Your task to perform on an android device: Add "bose quietcomfort 35" to the cart on newegg, then select checkout. Image 0: 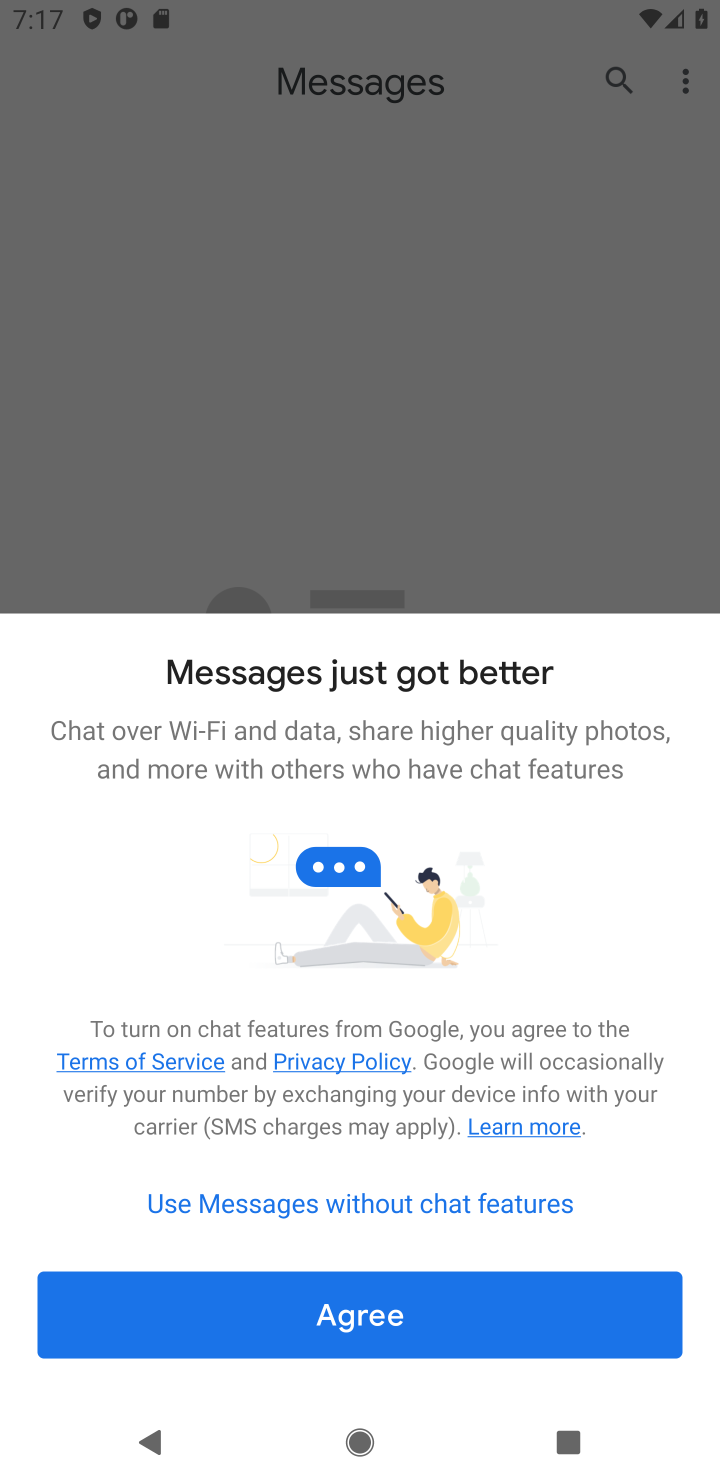
Step 0: press home button
Your task to perform on an android device: Add "bose quietcomfort 35" to the cart on newegg, then select checkout. Image 1: 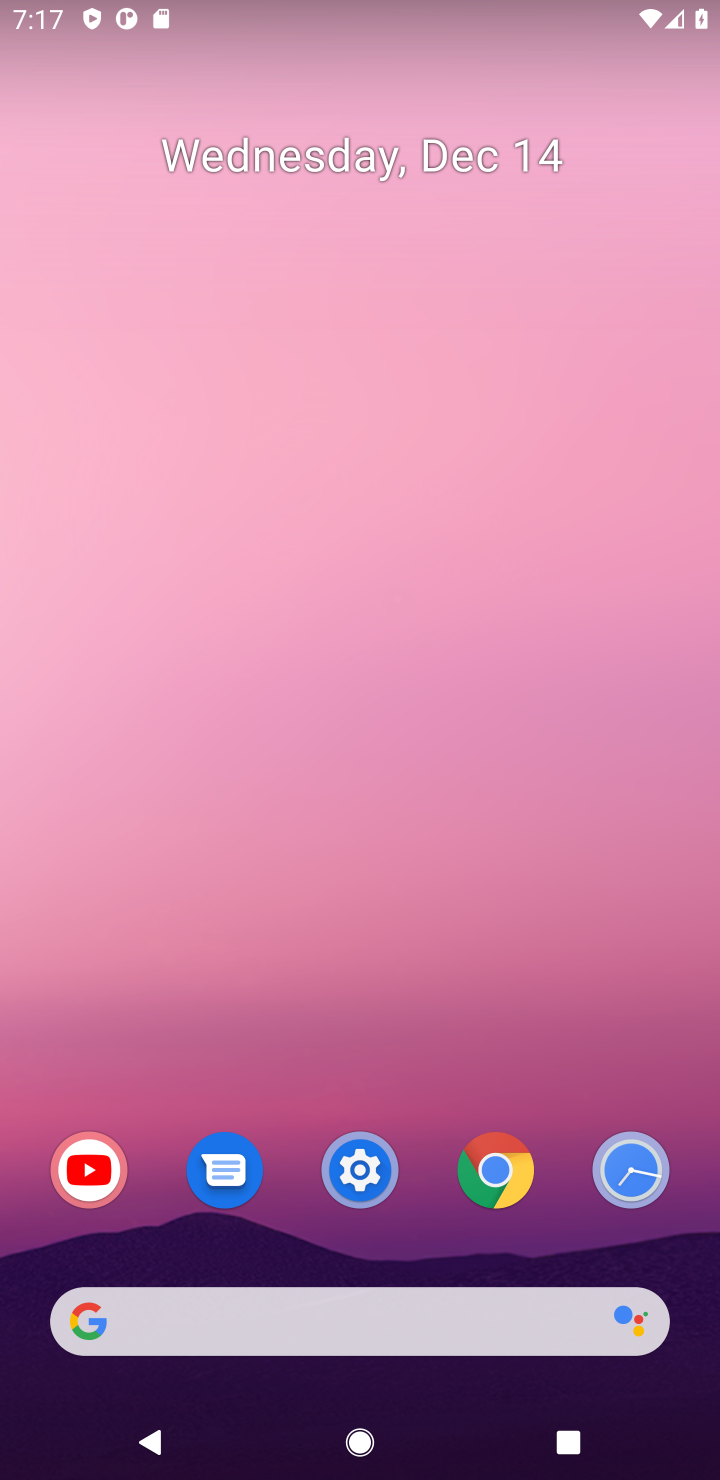
Step 1: click (495, 1166)
Your task to perform on an android device: Add "bose quietcomfort 35" to the cart on newegg, then select checkout. Image 2: 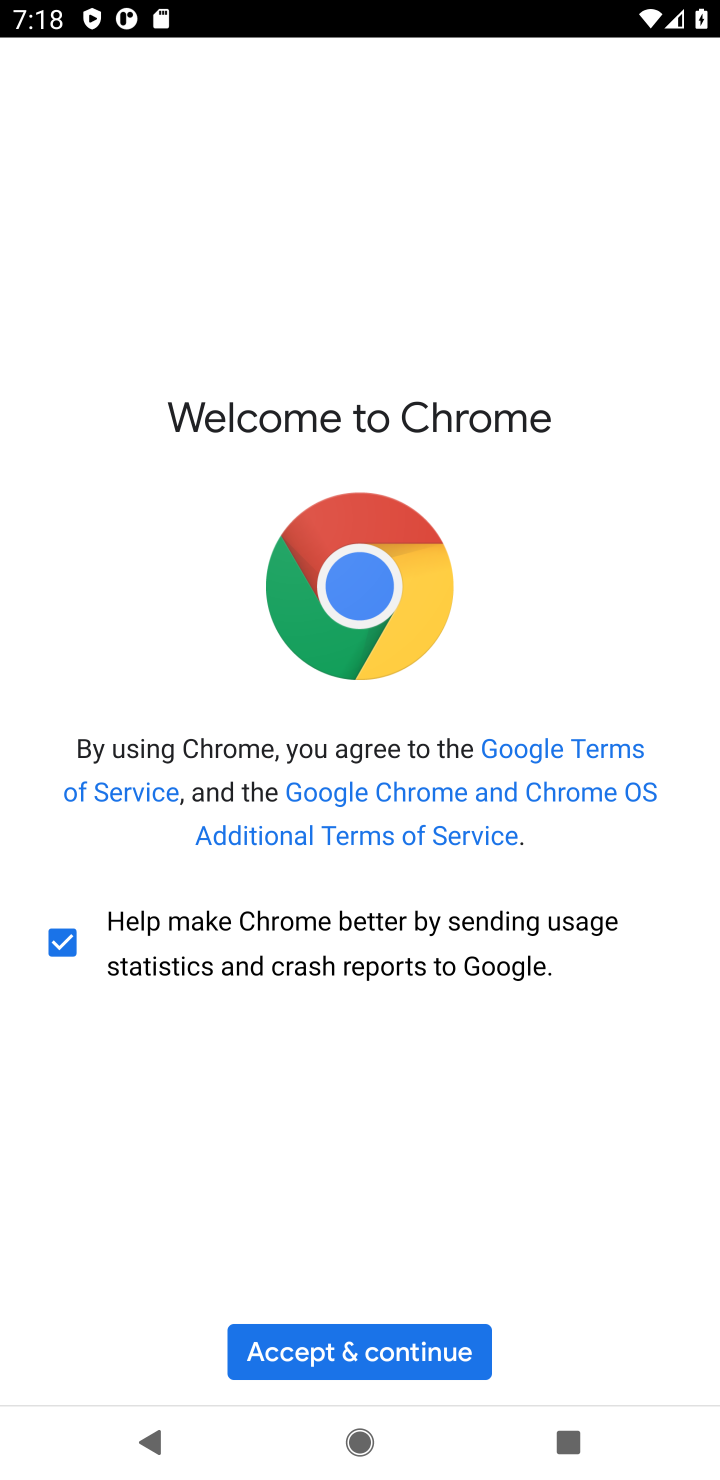
Step 2: click (307, 1351)
Your task to perform on an android device: Add "bose quietcomfort 35" to the cart on newegg, then select checkout. Image 3: 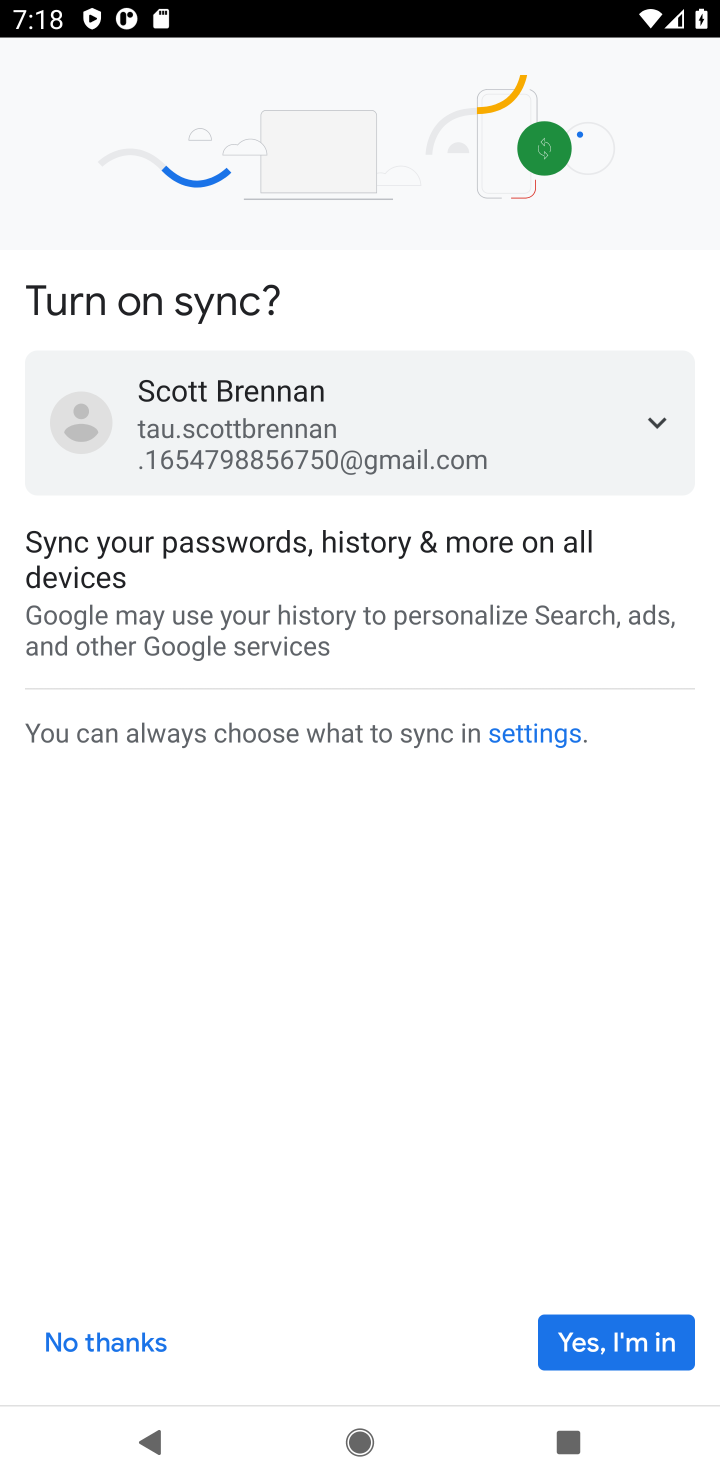
Step 3: click (601, 1346)
Your task to perform on an android device: Add "bose quietcomfort 35" to the cart on newegg, then select checkout. Image 4: 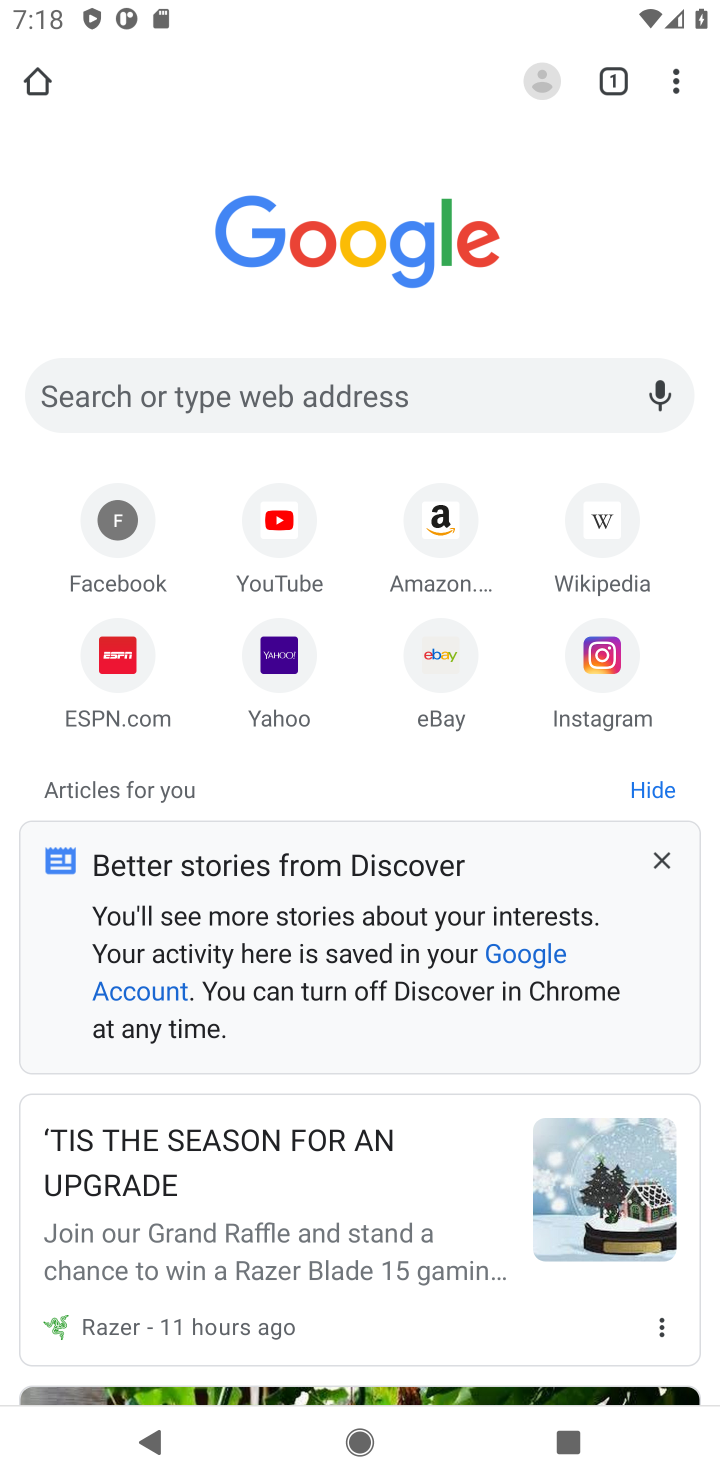
Step 4: click (415, 390)
Your task to perform on an android device: Add "bose quietcomfort 35" to the cart on newegg, then select checkout. Image 5: 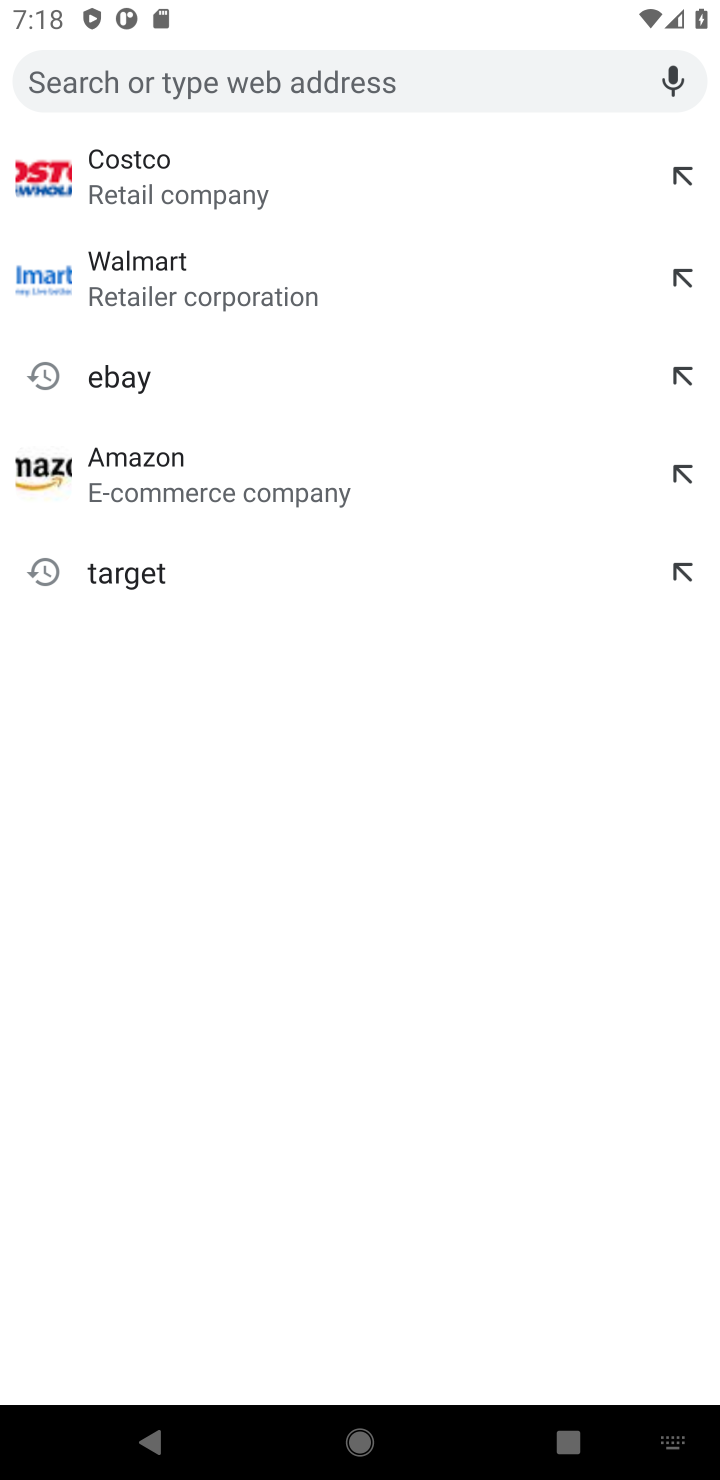
Step 5: type "newegg"
Your task to perform on an android device: Add "bose quietcomfort 35" to the cart on newegg, then select checkout. Image 6: 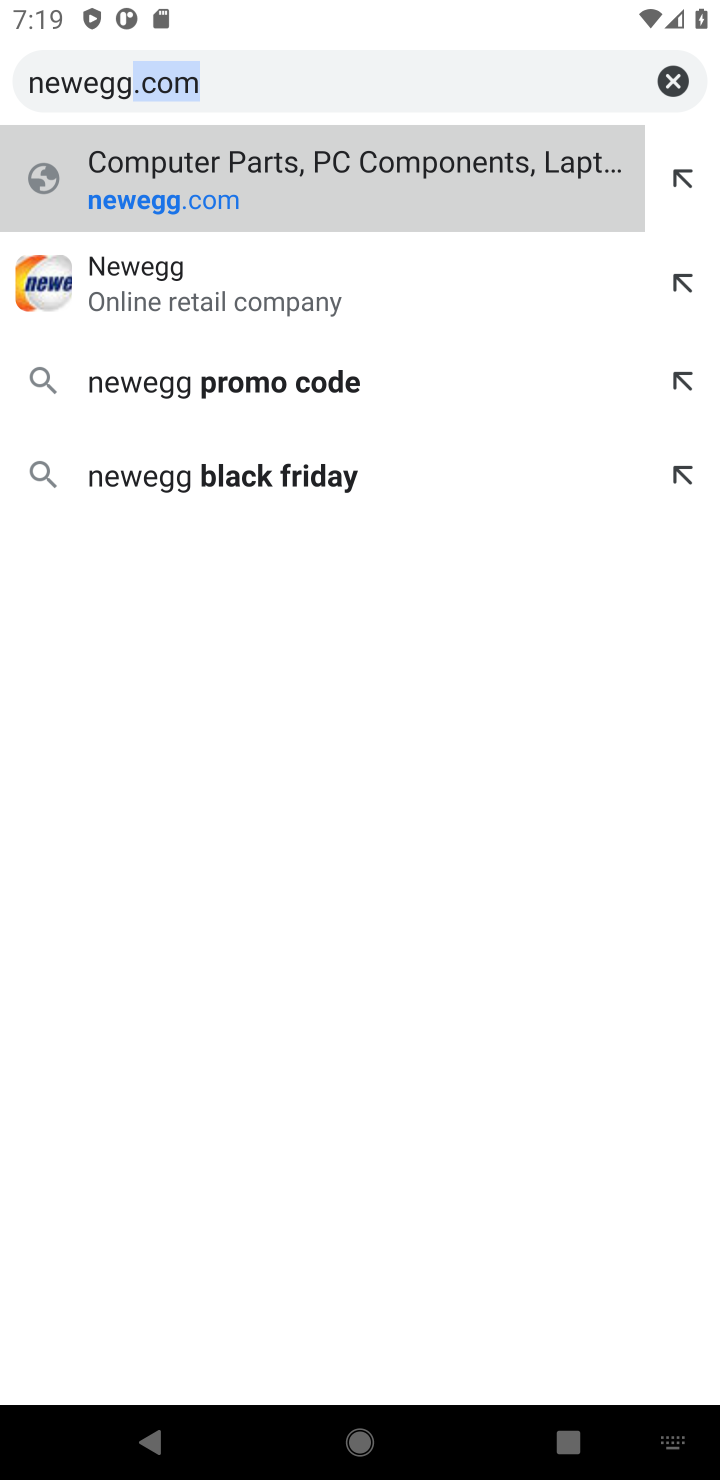
Step 6: click (249, 159)
Your task to perform on an android device: Add "bose quietcomfort 35" to the cart on newegg, then select checkout. Image 7: 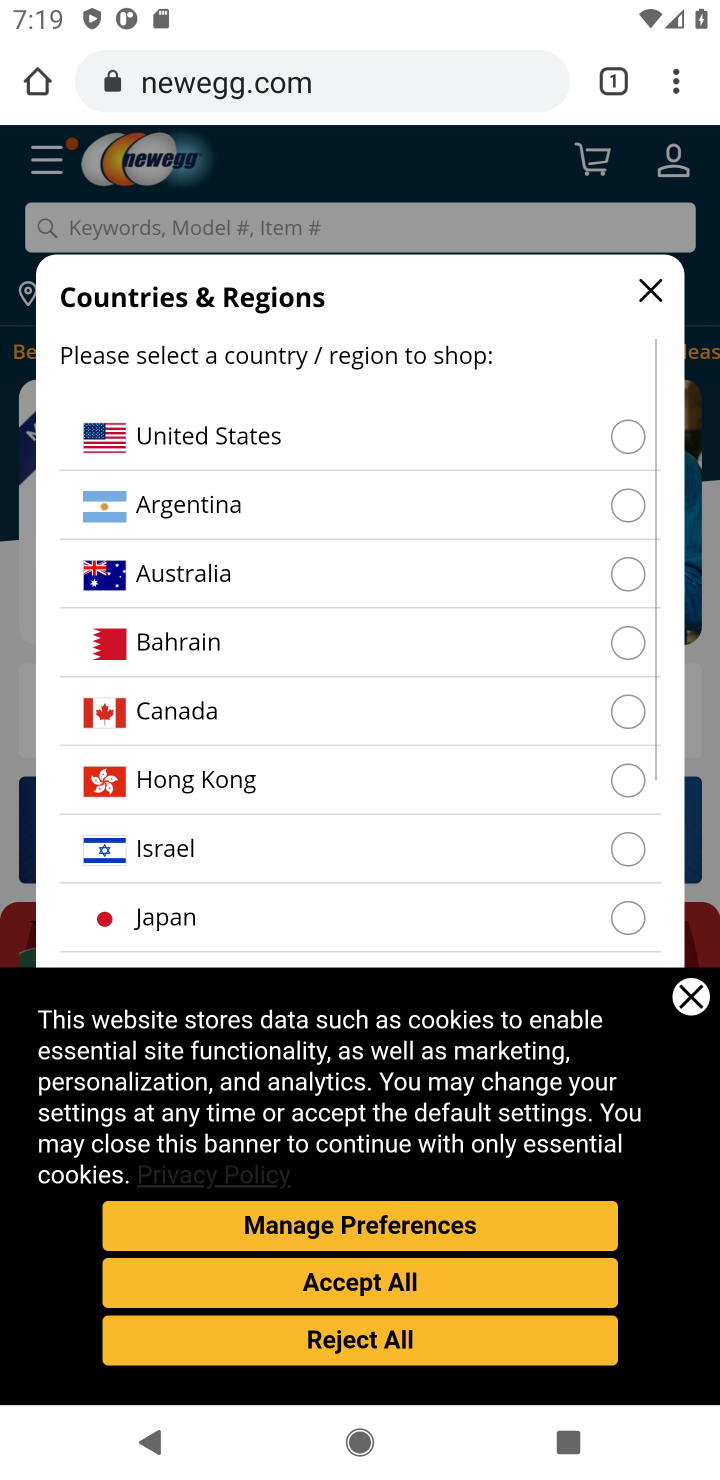
Step 7: click (688, 1002)
Your task to perform on an android device: Add "bose quietcomfort 35" to the cart on newegg, then select checkout. Image 8: 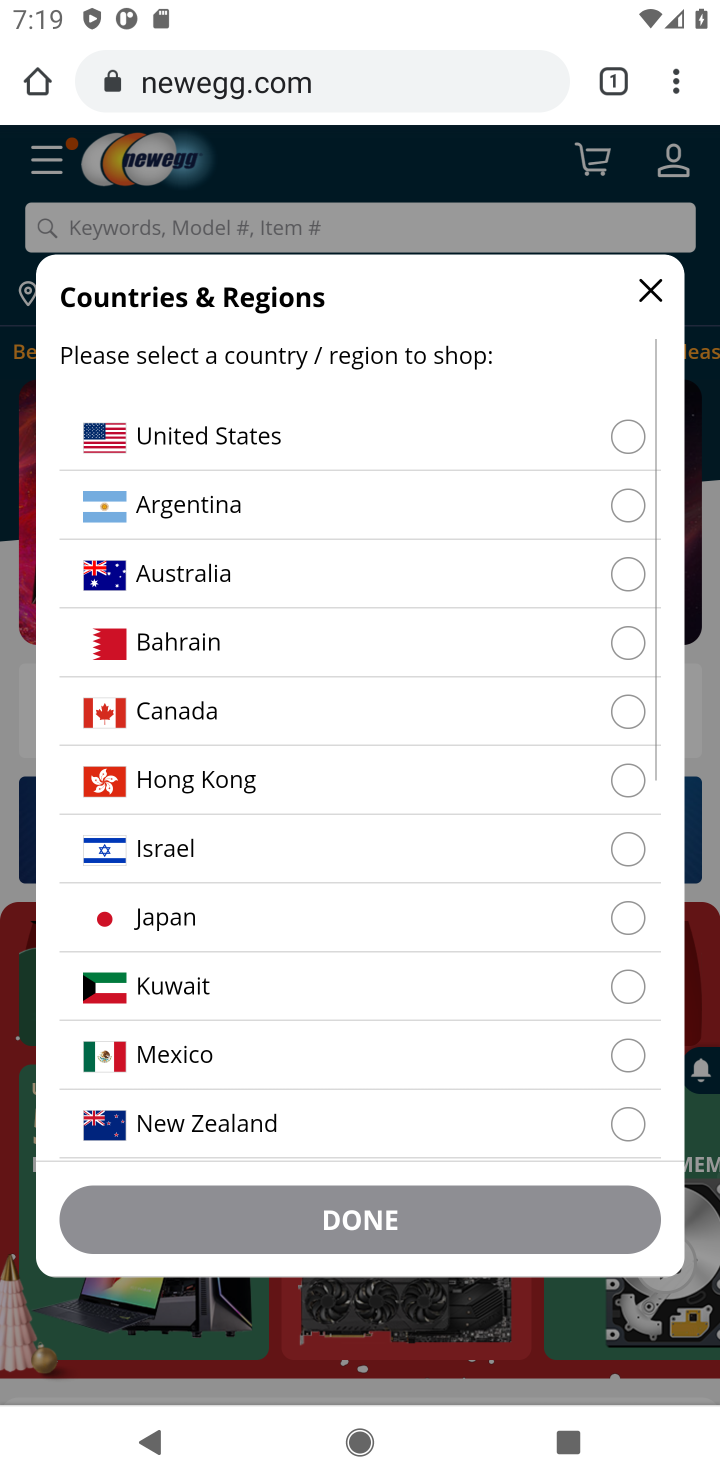
Step 8: click (384, 454)
Your task to perform on an android device: Add "bose quietcomfort 35" to the cart on newegg, then select checkout. Image 9: 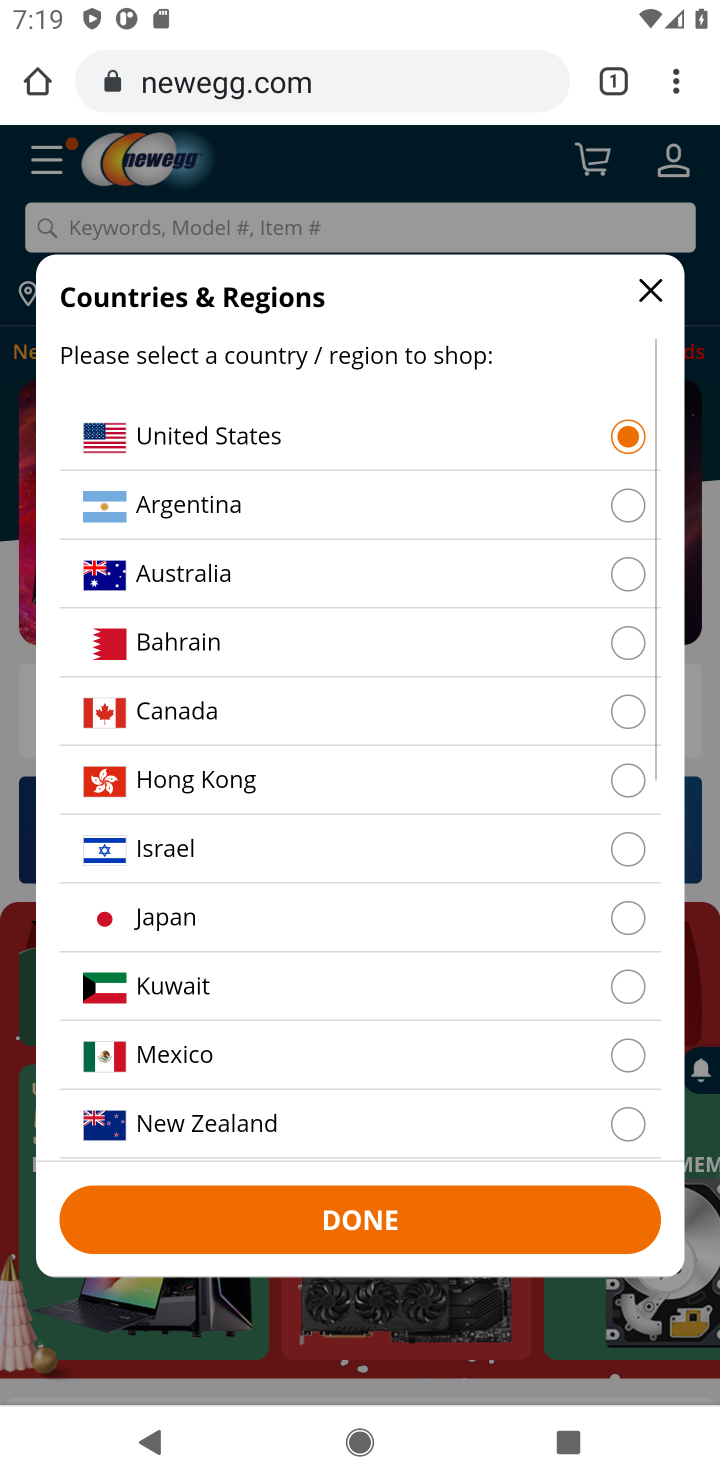
Step 9: click (394, 1216)
Your task to perform on an android device: Add "bose quietcomfort 35" to the cart on newegg, then select checkout. Image 10: 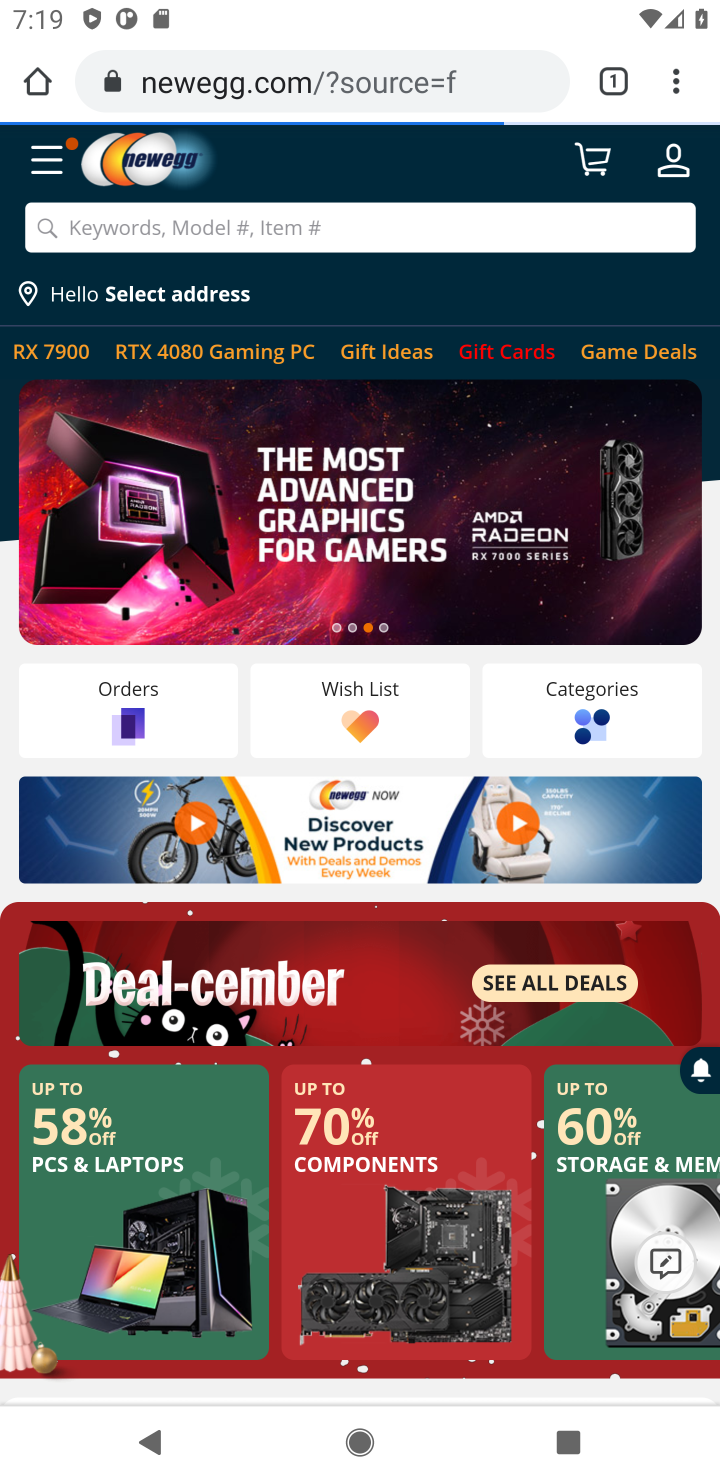
Step 10: click (386, 227)
Your task to perform on an android device: Add "bose quietcomfort 35" to the cart on newegg, then select checkout. Image 11: 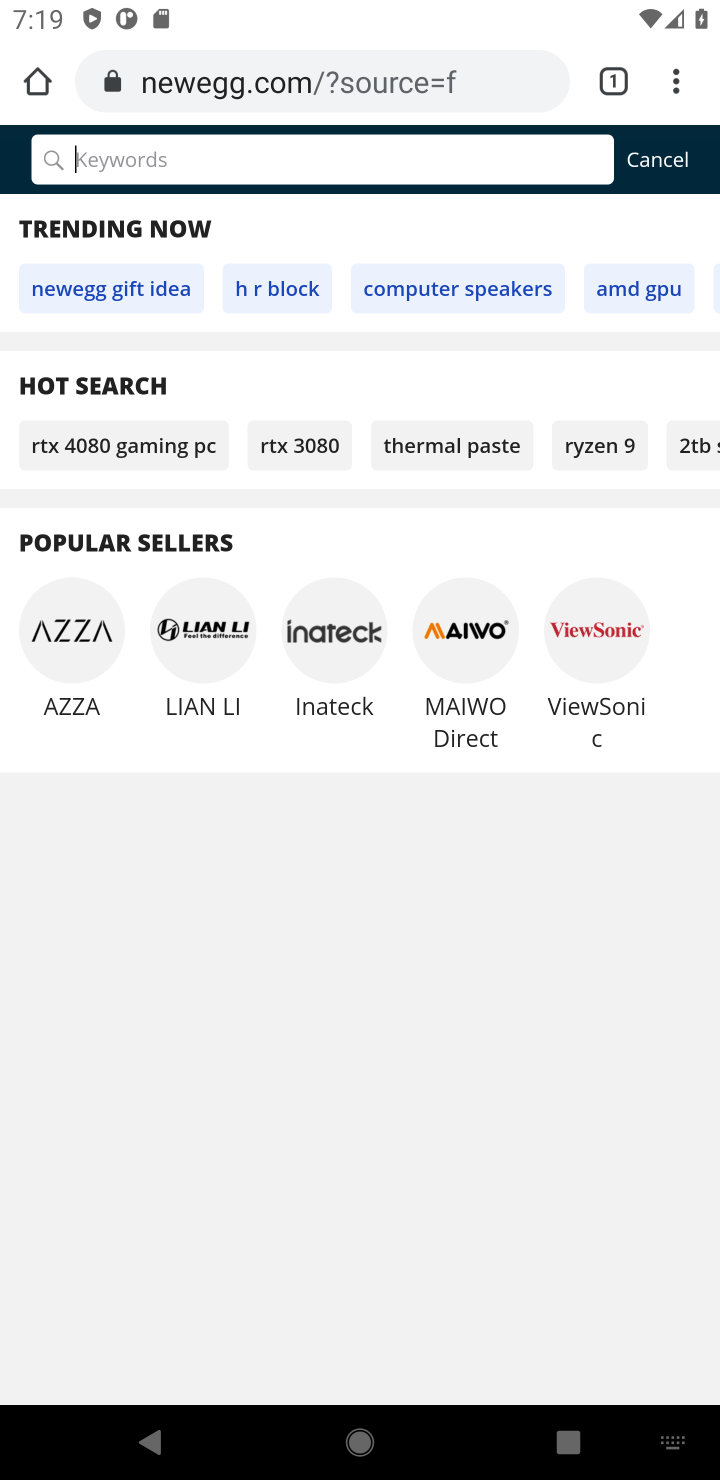
Step 11: type "bose quietcomfort 35"
Your task to perform on an android device: Add "bose quietcomfort 35" to the cart on newegg, then select checkout. Image 12: 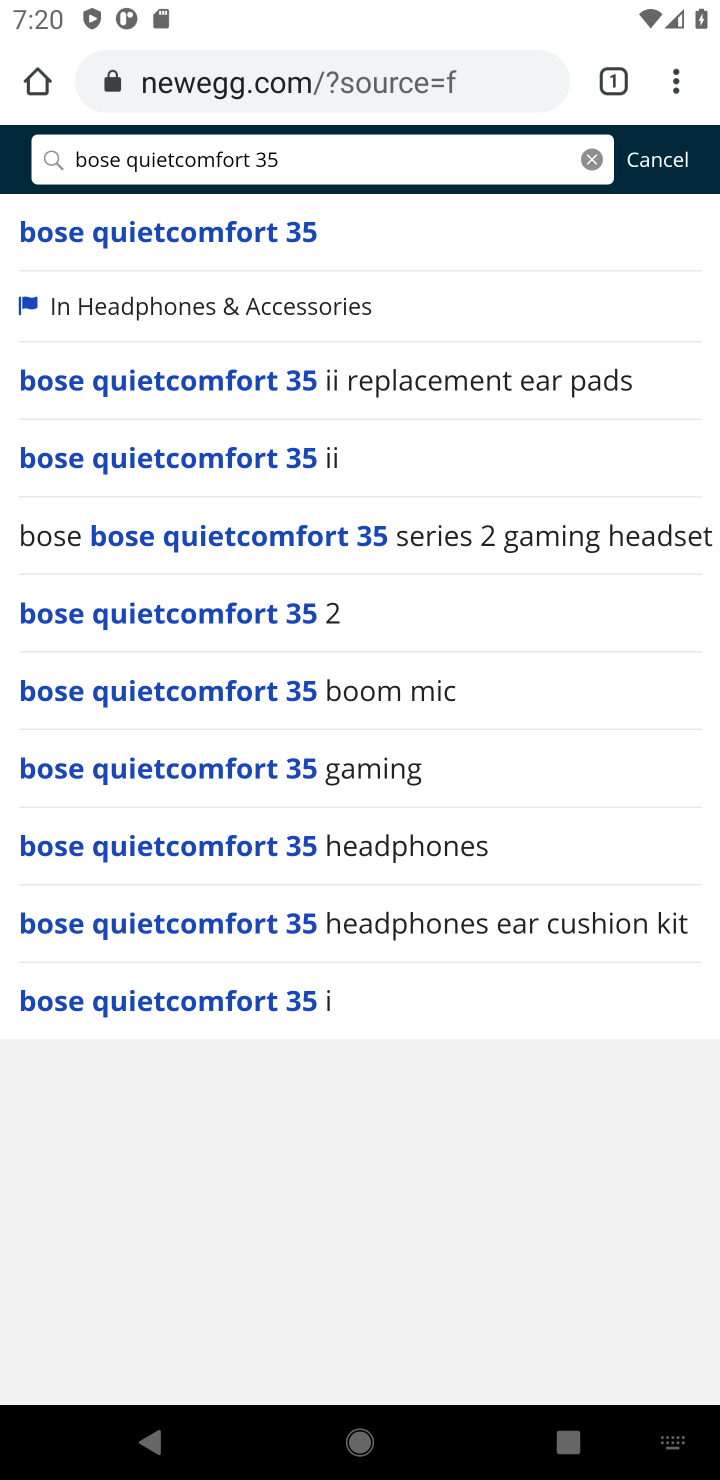
Step 12: click (184, 242)
Your task to perform on an android device: Add "bose quietcomfort 35" to the cart on newegg, then select checkout. Image 13: 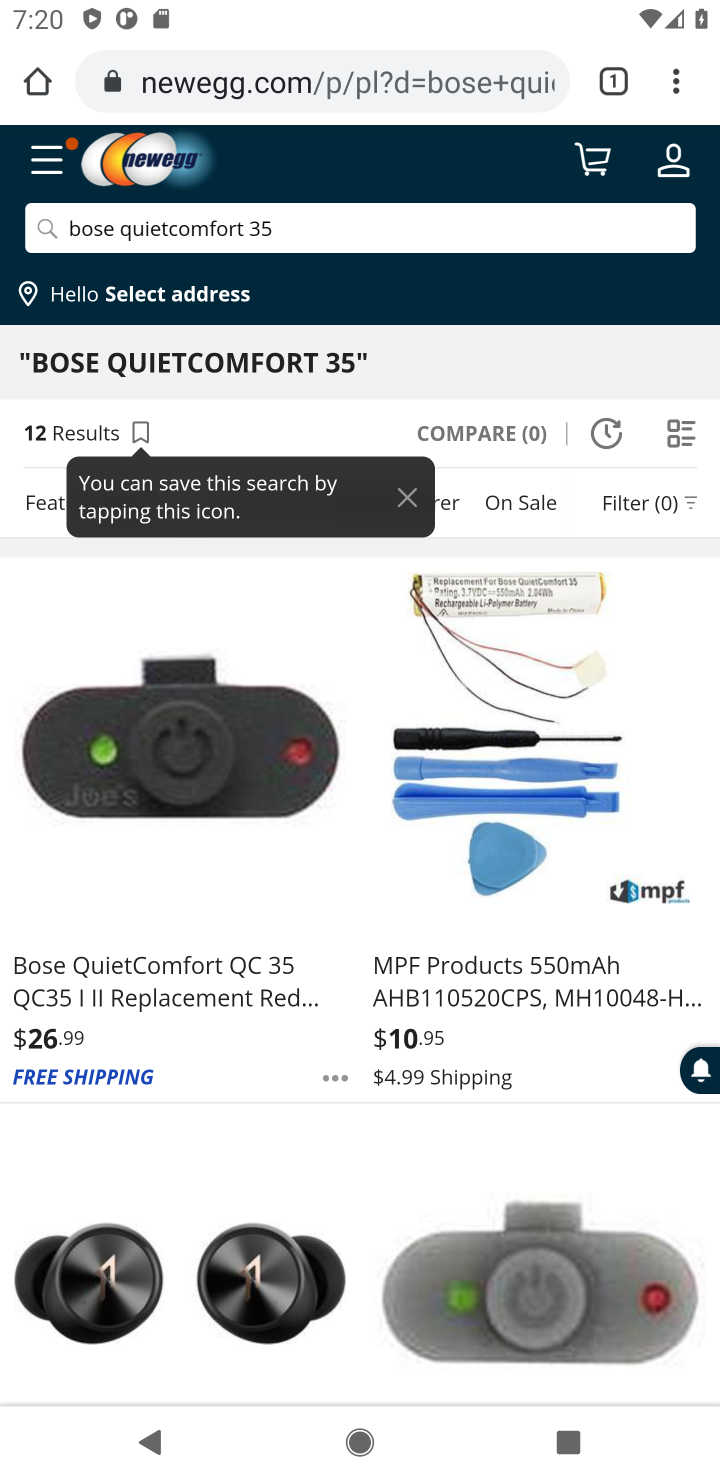
Step 13: click (224, 809)
Your task to perform on an android device: Add "bose quietcomfort 35" to the cart on newegg, then select checkout. Image 14: 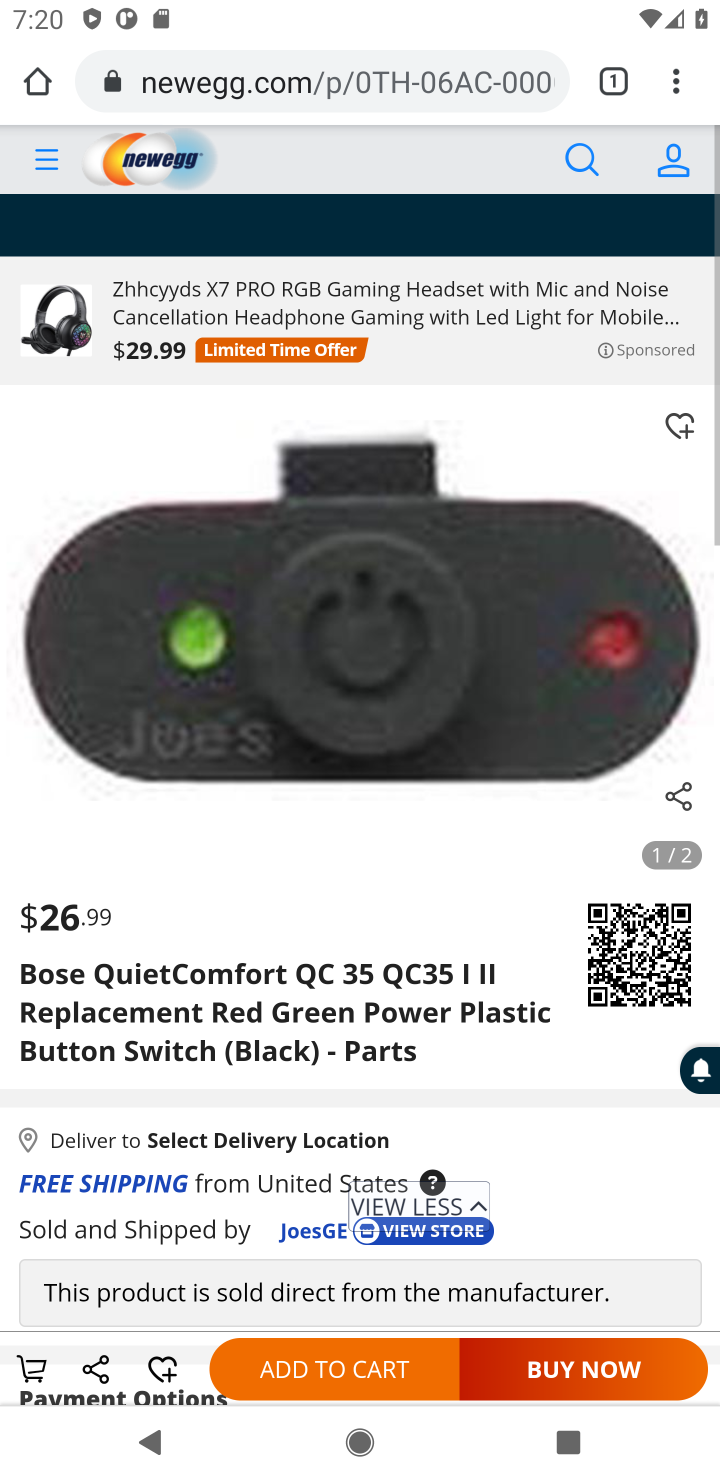
Step 14: click (318, 1373)
Your task to perform on an android device: Add "bose quietcomfort 35" to the cart on newegg, then select checkout. Image 15: 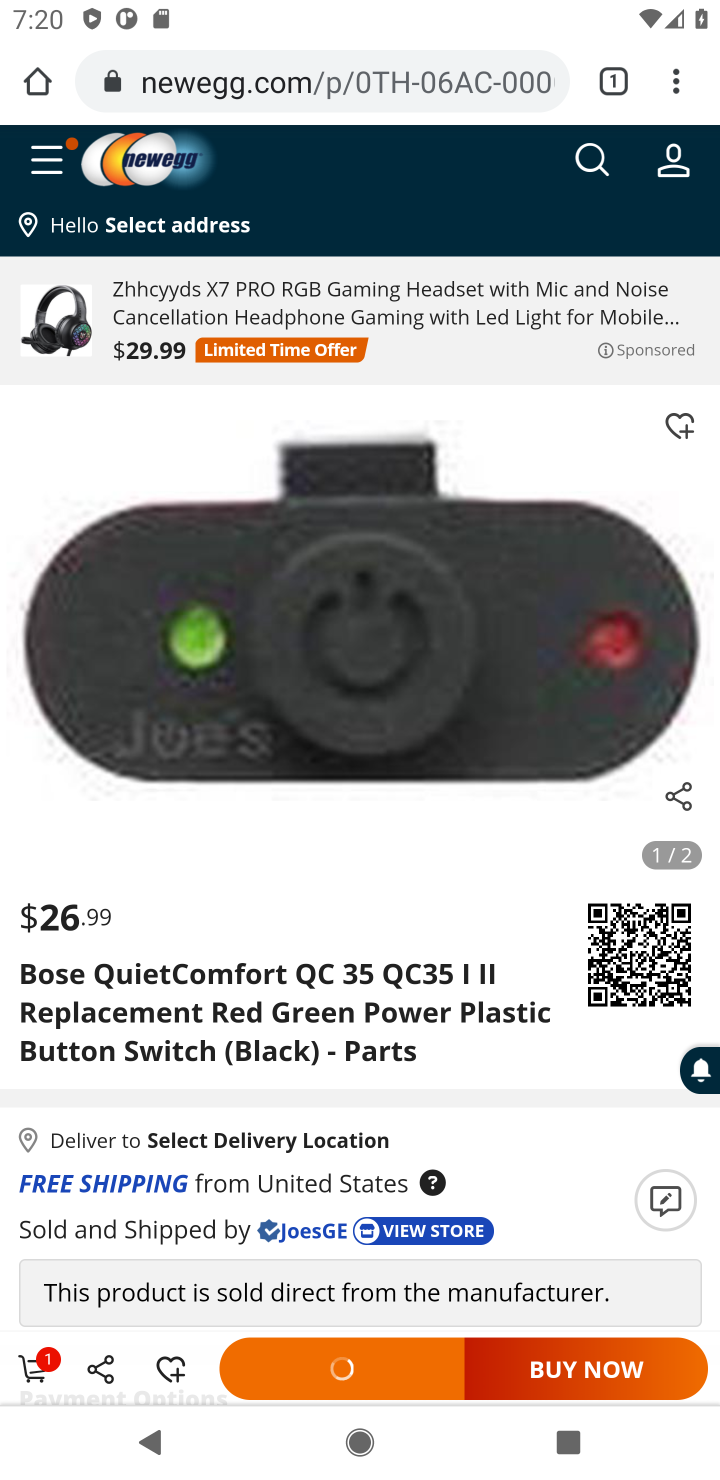
Step 15: click (30, 1367)
Your task to perform on an android device: Add "bose quietcomfort 35" to the cart on newegg, then select checkout. Image 16: 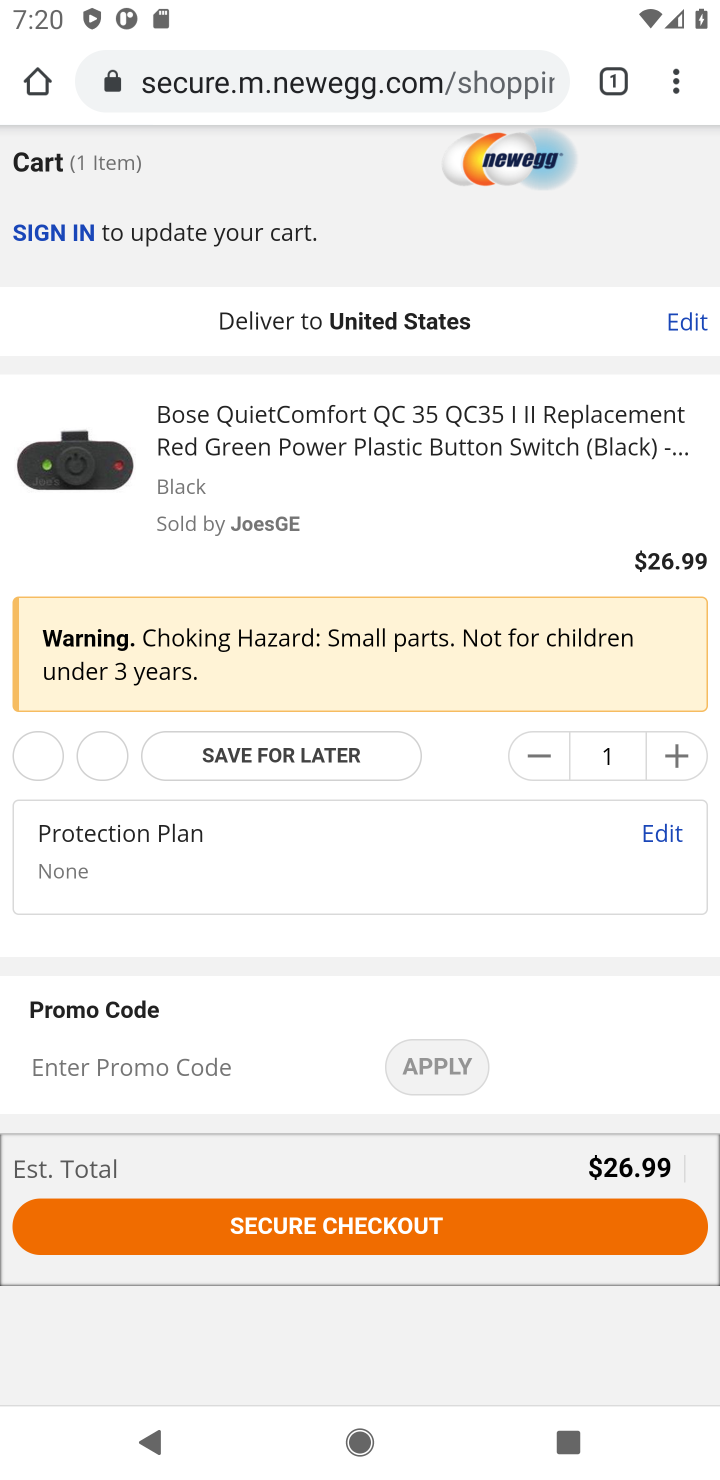
Step 16: click (307, 1226)
Your task to perform on an android device: Add "bose quietcomfort 35" to the cart on newegg, then select checkout. Image 17: 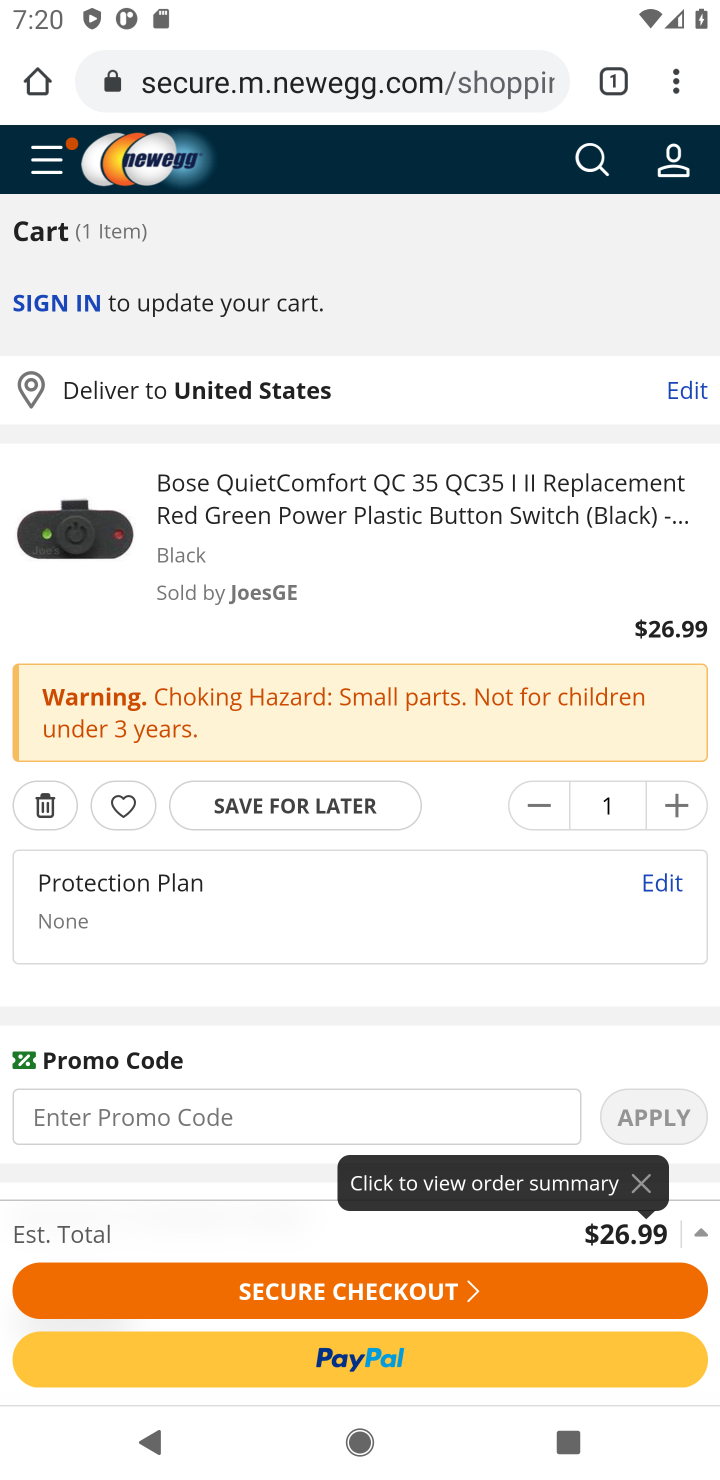
Step 17: task complete